Your task to perform on an android device: Open location settings Image 0: 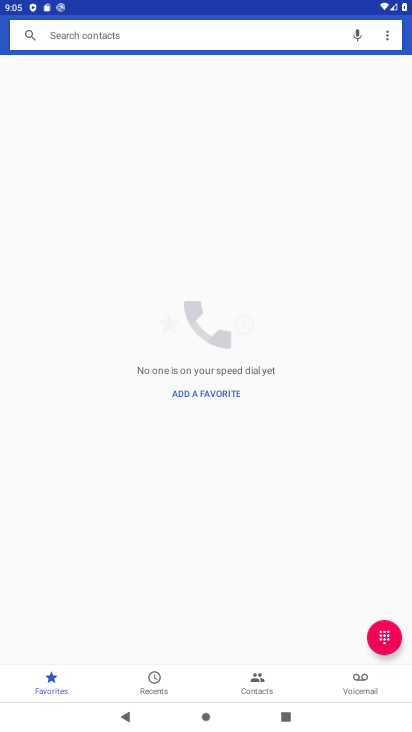
Step 0: press home button
Your task to perform on an android device: Open location settings Image 1: 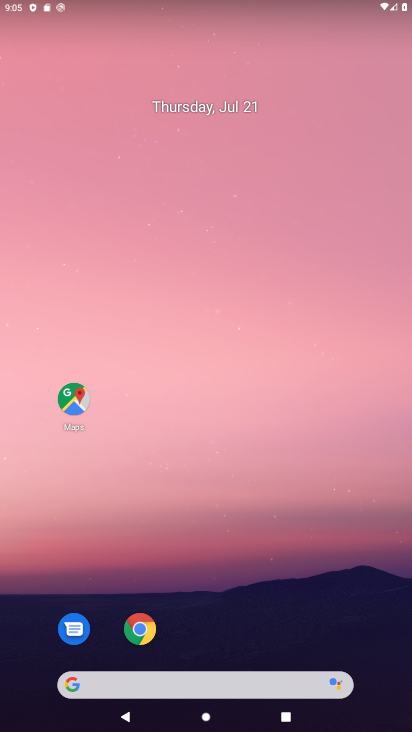
Step 1: drag from (217, 621) to (400, 7)
Your task to perform on an android device: Open location settings Image 2: 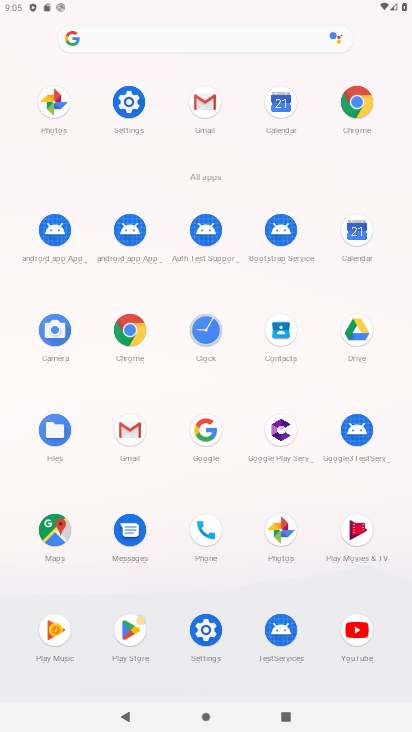
Step 2: click (205, 630)
Your task to perform on an android device: Open location settings Image 3: 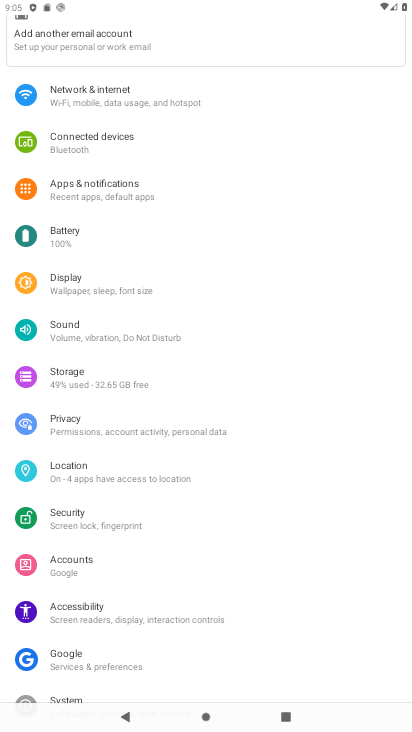
Step 3: click (134, 486)
Your task to perform on an android device: Open location settings Image 4: 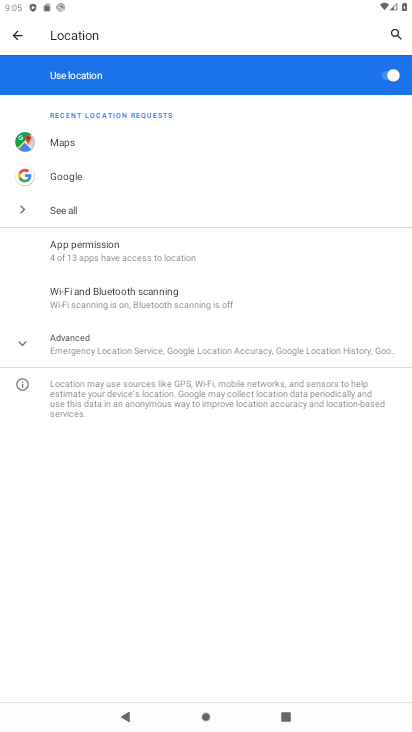
Step 4: task complete